Your task to perform on an android device: turn off translation in the chrome app Image 0: 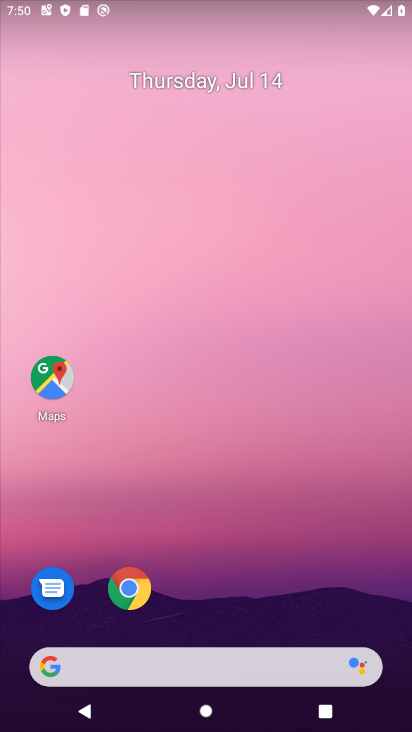
Step 0: drag from (377, 626) to (196, 23)
Your task to perform on an android device: turn off translation in the chrome app Image 1: 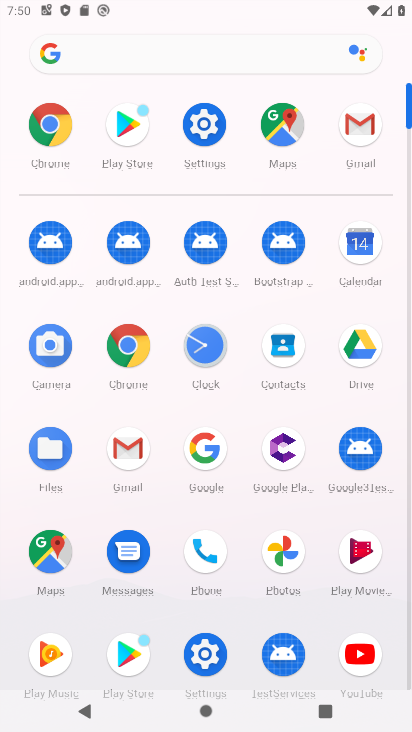
Step 1: click (138, 335)
Your task to perform on an android device: turn off translation in the chrome app Image 2: 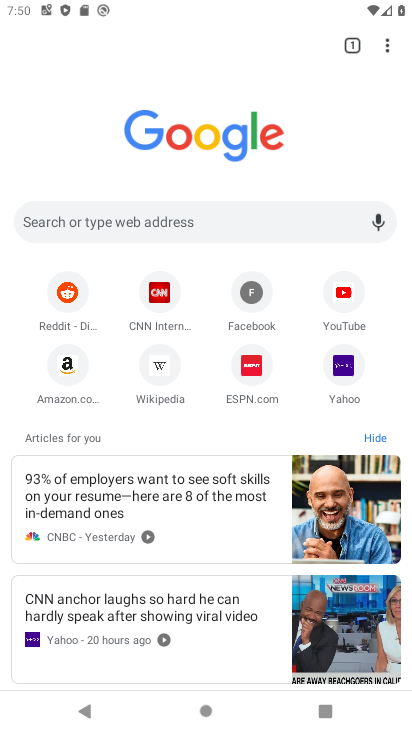
Step 2: click (384, 46)
Your task to perform on an android device: turn off translation in the chrome app Image 3: 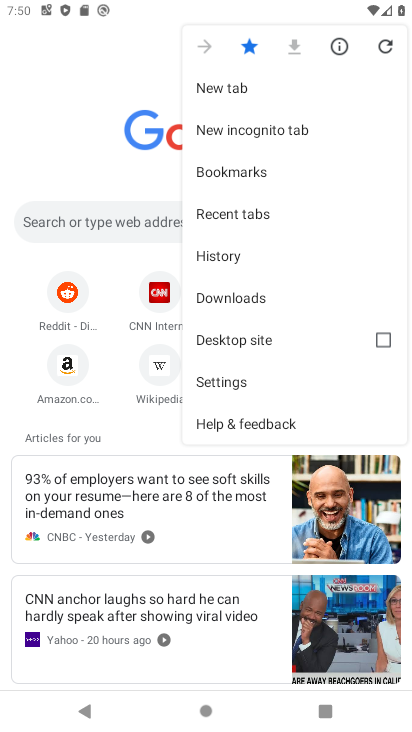
Step 3: click (234, 382)
Your task to perform on an android device: turn off translation in the chrome app Image 4: 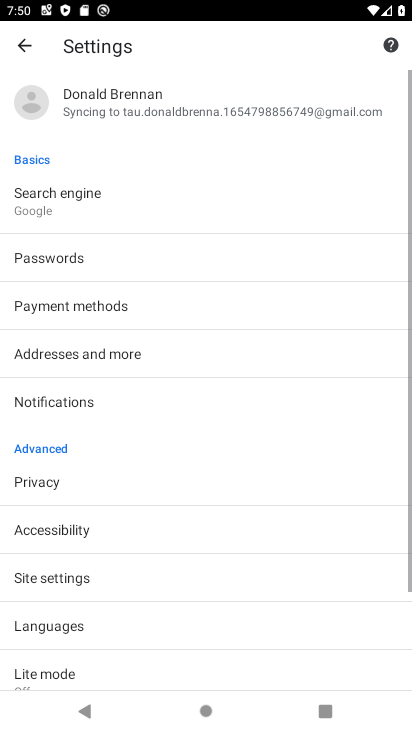
Step 4: click (58, 624)
Your task to perform on an android device: turn off translation in the chrome app Image 5: 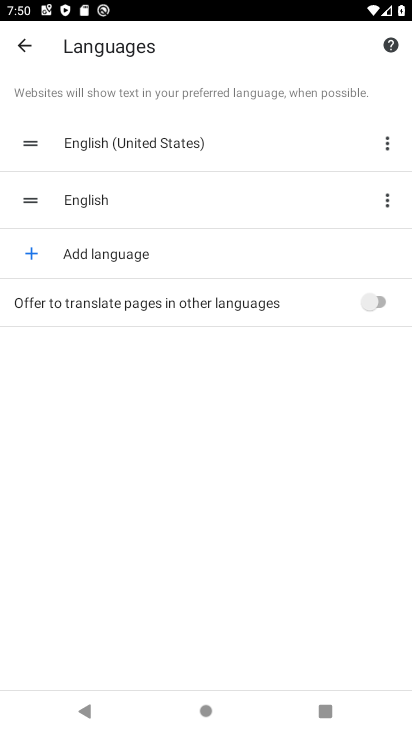
Step 5: task complete